Your task to perform on an android device: turn on improve location accuracy Image 0: 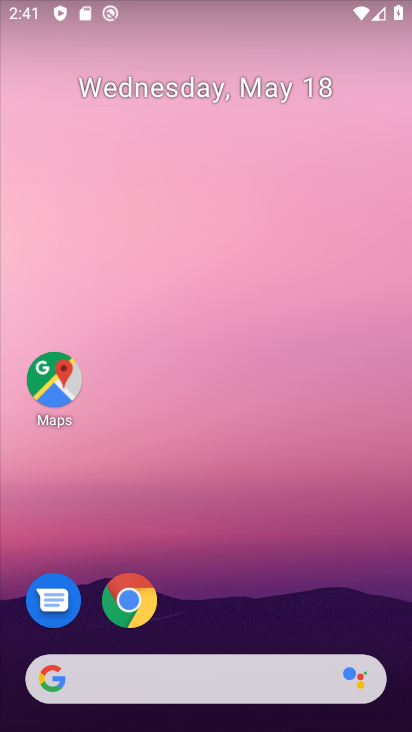
Step 0: drag from (320, 568) to (317, 218)
Your task to perform on an android device: turn on improve location accuracy Image 1: 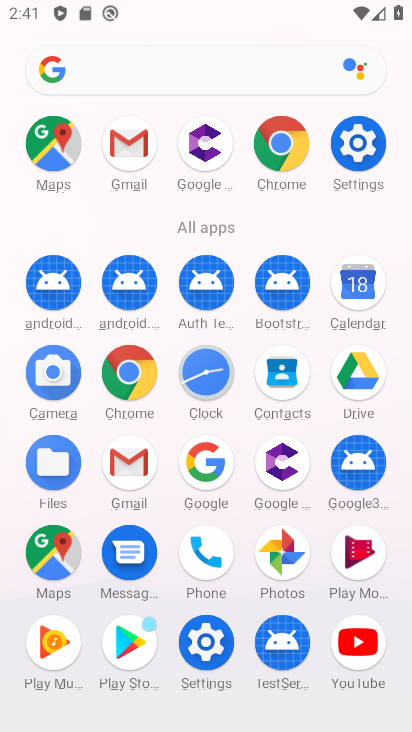
Step 1: click (194, 657)
Your task to perform on an android device: turn on improve location accuracy Image 2: 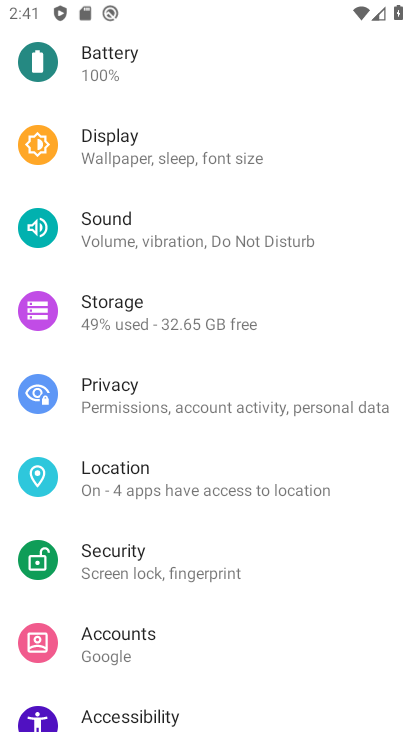
Step 2: click (205, 499)
Your task to perform on an android device: turn on improve location accuracy Image 3: 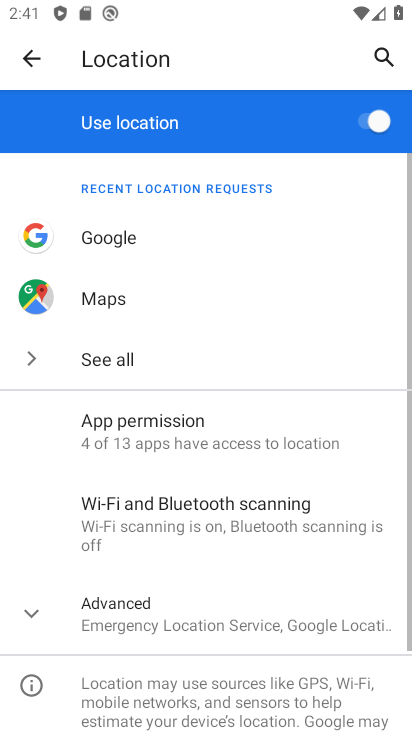
Step 3: click (220, 623)
Your task to perform on an android device: turn on improve location accuracy Image 4: 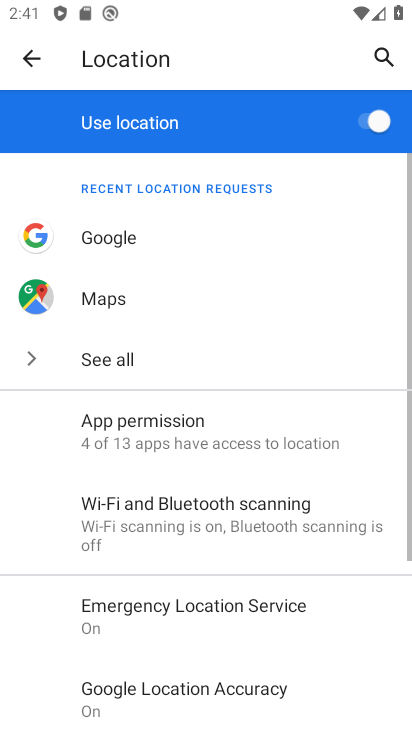
Step 4: task complete